Your task to perform on an android device: Go to display settings Image 0: 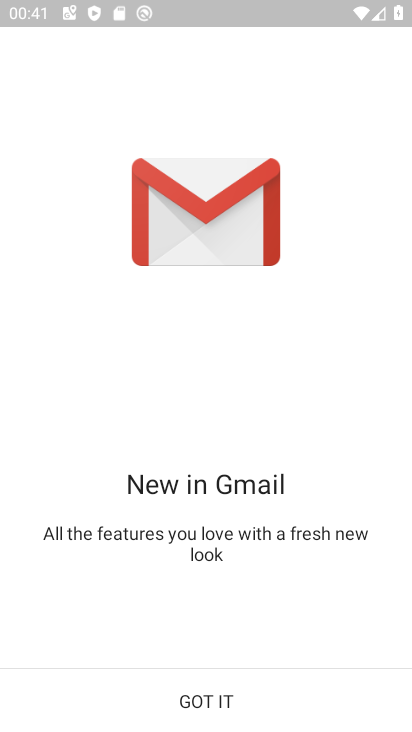
Step 0: press home button
Your task to perform on an android device: Go to display settings Image 1: 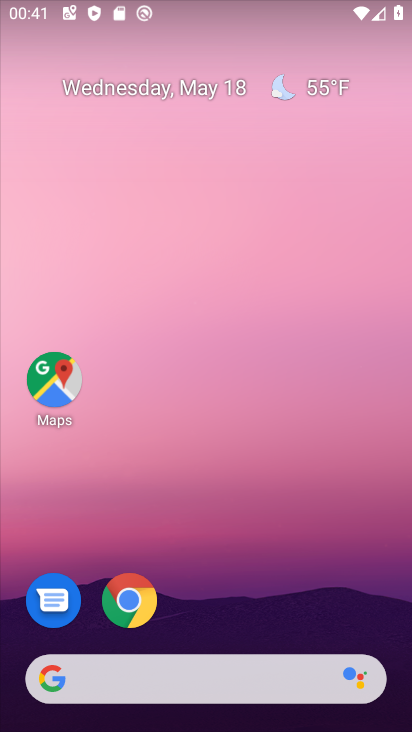
Step 1: drag from (188, 704) to (210, 308)
Your task to perform on an android device: Go to display settings Image 2: 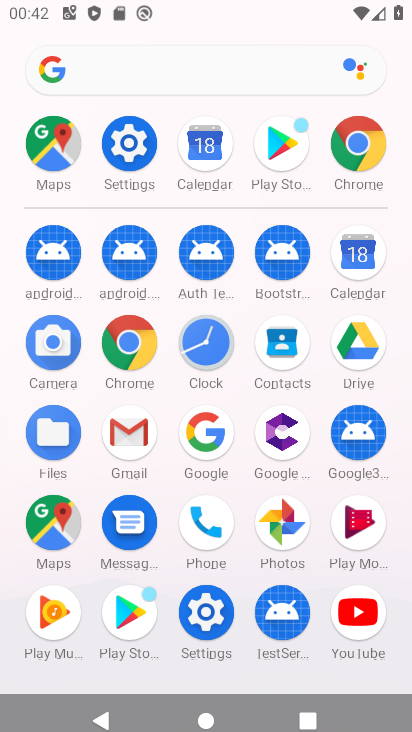
Step 2: click (192, 610)
Your task to perform on an android device: Go to display settings Image 3: 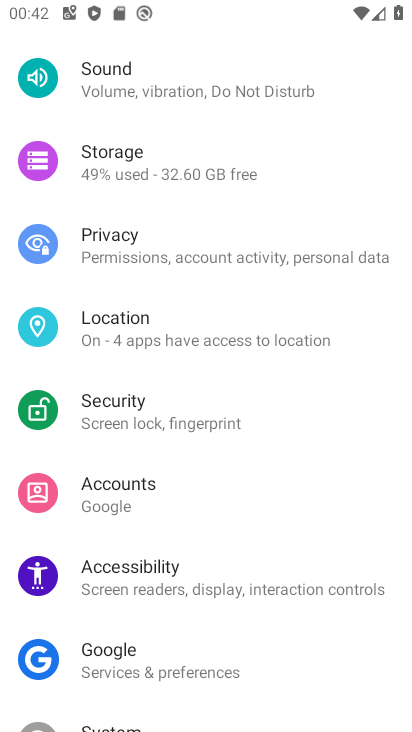
Step 3: drag from (118, 168) to (151, 496)
Your task to perform on an android device: Go to display settings Image 4: 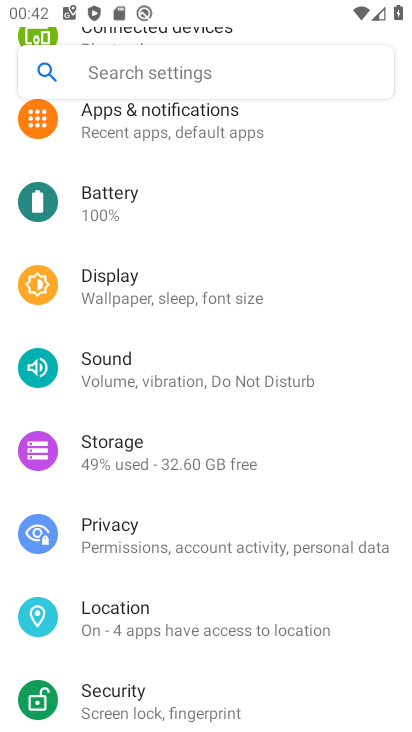
Step 4: click (134, 296)
Your task to perform on an android device: Go to display settings Image 5: 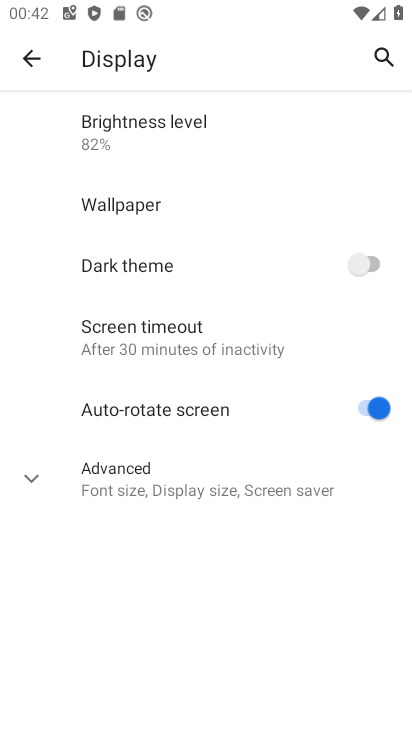
Step 5: task complete